Your task to perform on an android device: Open a new Chrome private window Image 0: 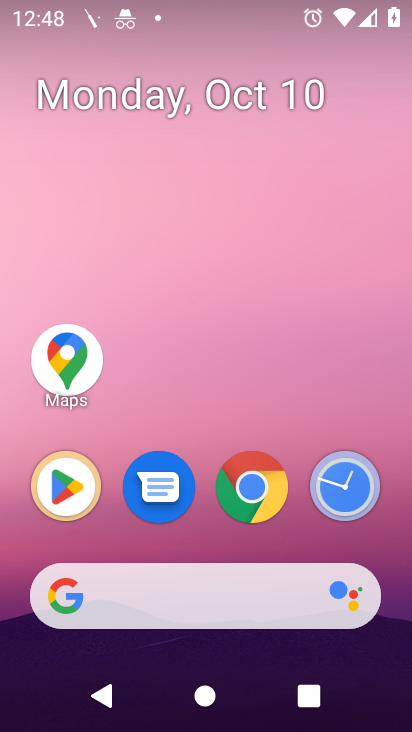
Step 0: click (248, 494)
Your task to perform on an android device: Open a new Chrome private window Image 1: 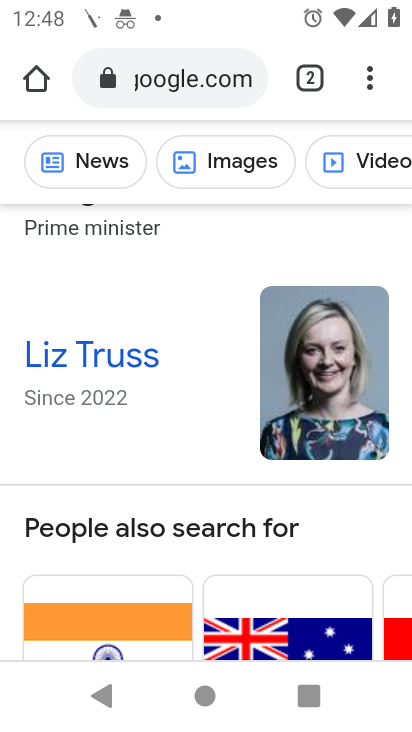
Step 1: click (367, 87)
Your task to perform on an android device: Open a new Chrome private window Image 2: 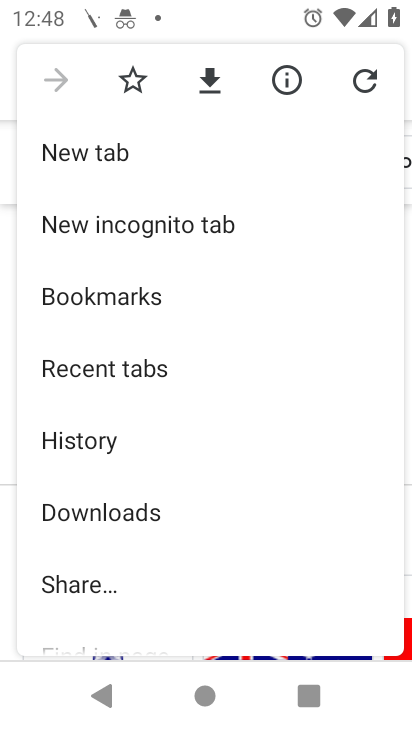
Step 2: click (178, 233)
Your task to perform on an android device: Open a new Chrome private window Image 3: 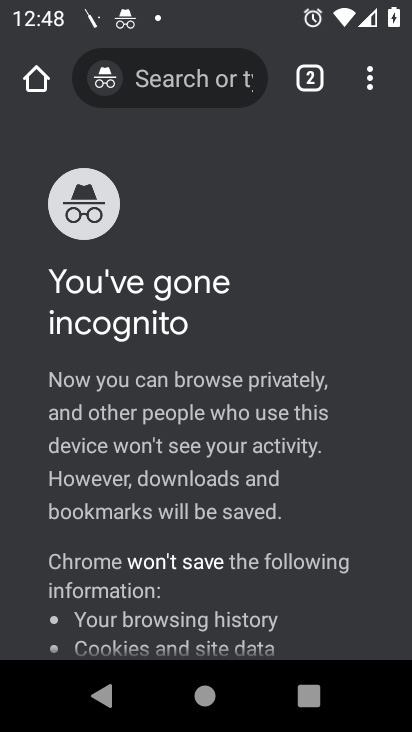
Step 3: task complete